Your task to perform on an android device: open the mobile data screen to see how much data has been used Image 0: 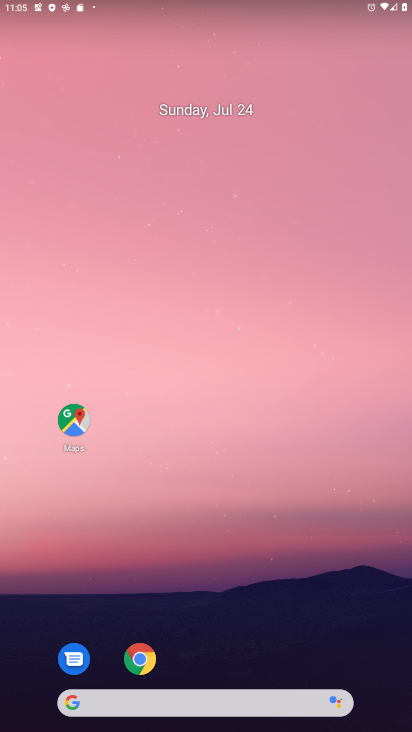
Step 0: drag from (391, 696) to (364, 142)
Your task to perform on an android device: open the mobile data screen to see how much data has been used Image 1: 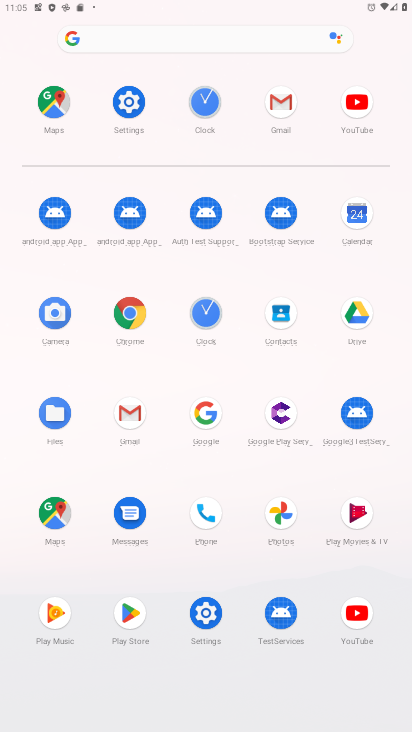
Step 1: click (129, 115)
Your task to perform on an android device: open the mobile data screen to see how much data has been used Image 2: 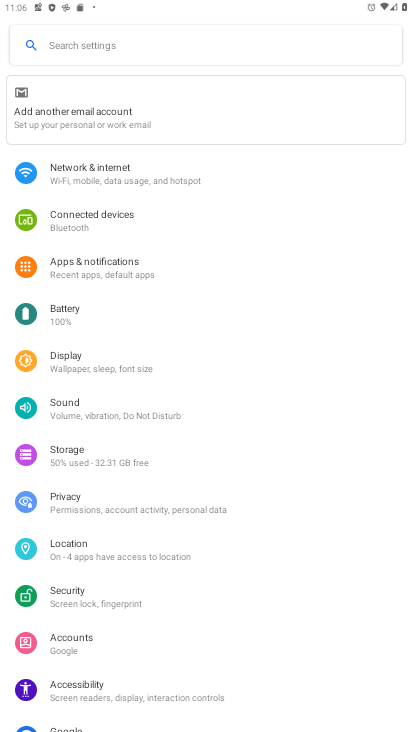
Step 2: click (91, 167)
Your task to perform on an android device: open the mobile data screen to see how much data has been used Image 3: 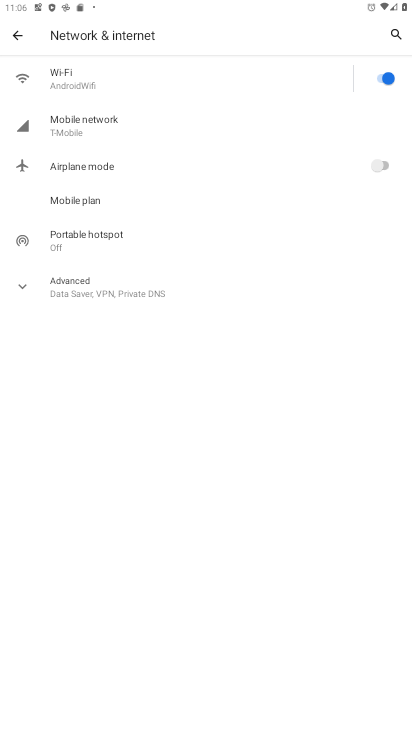
Step 3: click (86, 112)
Your task to perform on an android device: open the mobile data screen to see how much data has been used Image 4: 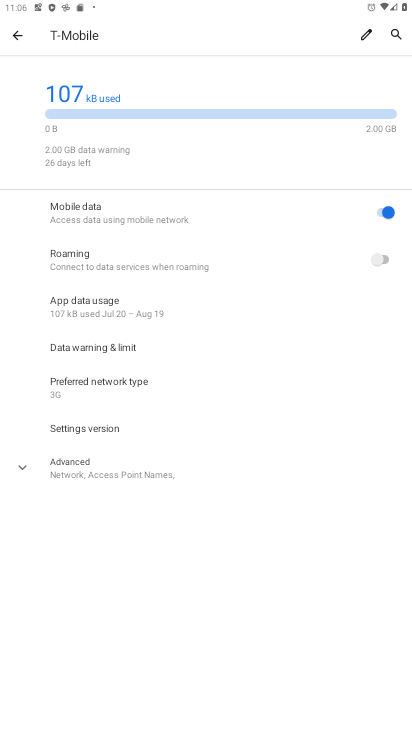
Step 4: task complete